Your task to perform on an android device: find snoozed emails in the gmail app Image 0: 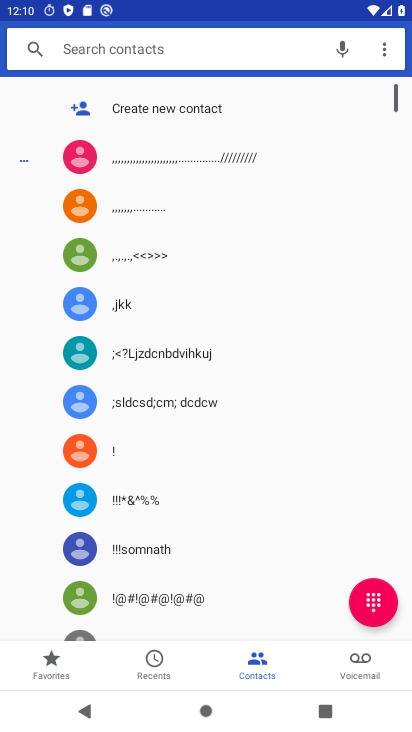
Step 0: press home button
Your task to perform on an android device: find snoozed emails in the gmail app Image 1: 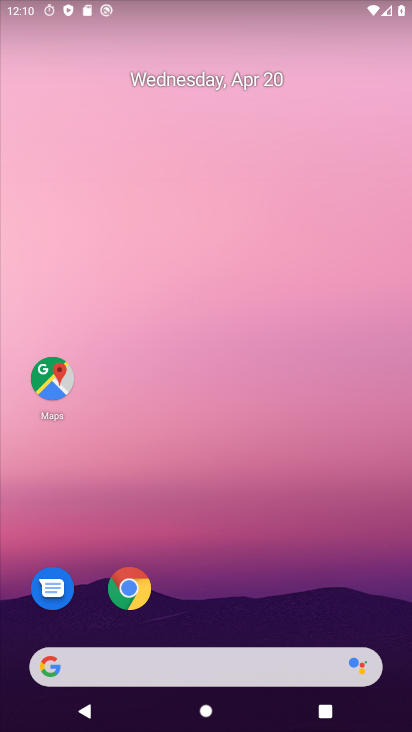
Step 1: drag from (194, 642) to (177, 4)
Your task to perform on an android device: find snoozed emails in the gmail app Image 2: 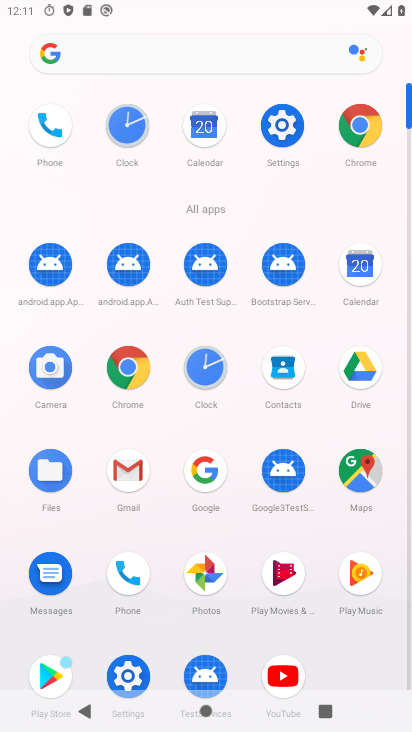
Step 2: click (122, 474)
Your task to perform on an android device: find snoozed emails in the gmail app Image 3: 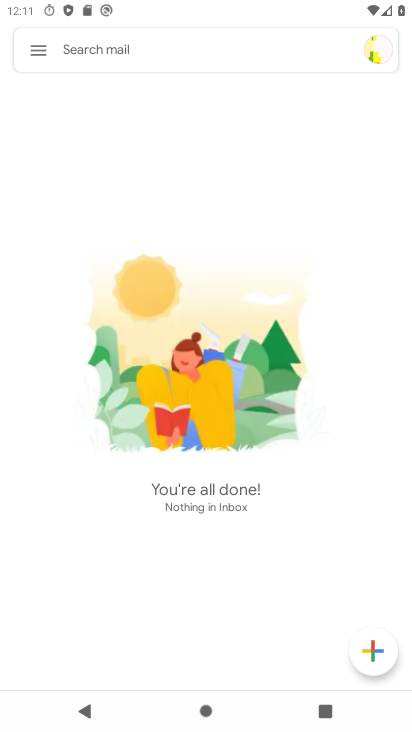
Step 3: click (43, 55)
Your task to perform on an android device: find snoozed emails in the gmail app Image 4: 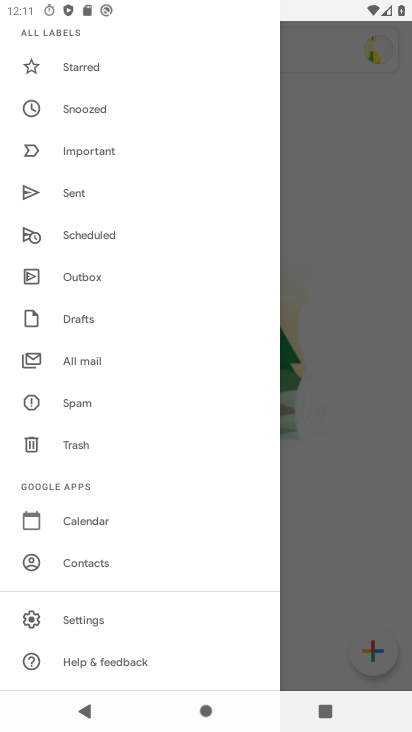
Step 4: click (64, 116)
Your task to perform on an android device: find snoozed emails in the gmail app Image 5: 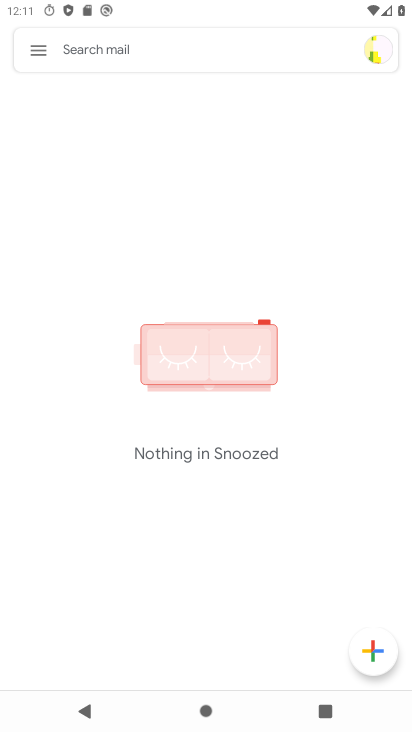
Step 5: task complete